Your task to perform on an android device: open app "Mercado Libre" (install if not already installed) and enter user name: "tolerating@yahoo.com" and password: "Kepler" Image 0: 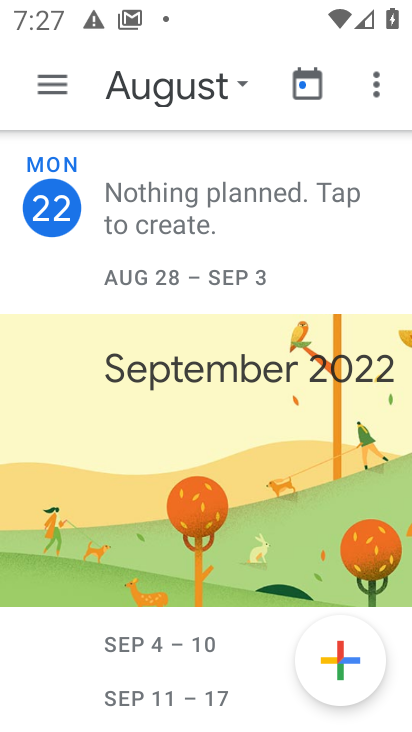
Step 0: press home button
Your task to perform on an android device: open app "Mercado Libre" (install if not already installed) and enter user name: "tolerating@yahoo.com" and password: "Kepler" Image 1: 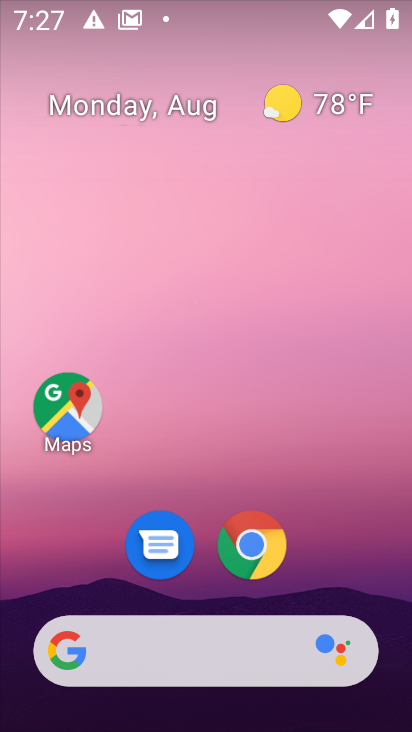
Step 1: drag from (362, 512) to (401, 166)
Your task to perform on an android device: open app "Mercado Libre" (install if not already installed) and enter user name: "tolerating@yahoo.com" and password: "Kepler" Image 2: 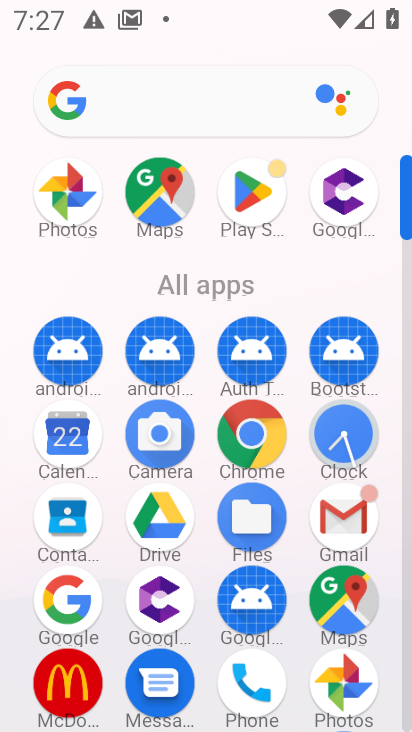
Step 2: click (248, 177)
Your task to perform on an android device: open app "Mercado Libre" (install if not already installed) and enter user name: "tolerating@yahoo.com" and password: "Kepler" Image 3: 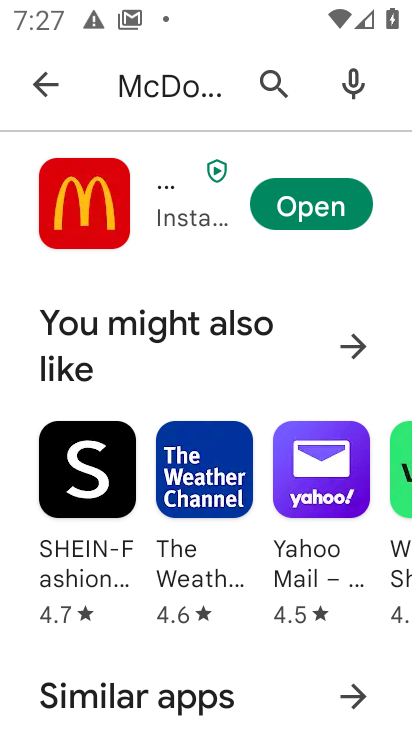
Step 3: press back button
Your task to perform on an android device: open app "Mercado Libre" (install if not already installed) and enter user name: "tolerating@yahoo.com" and password: "Kepler" Image 4: 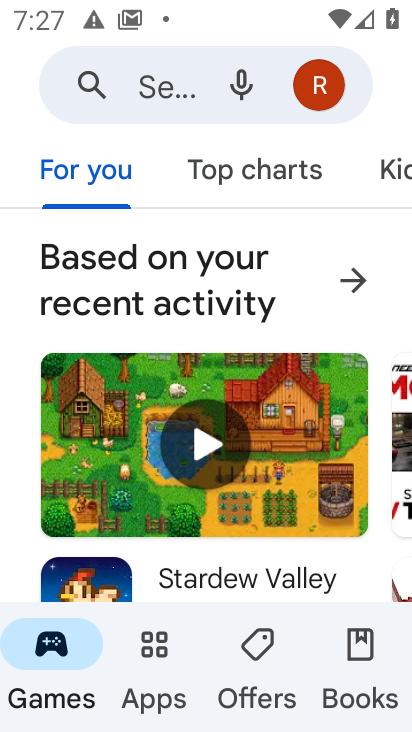
Step 4: click (157, 84)
Your task to perform on an android device: open app "Mercado Libre" (install if not already installed) and enter user name: "tolerating@yahoo.com" and password: "Kepler" Image 5: 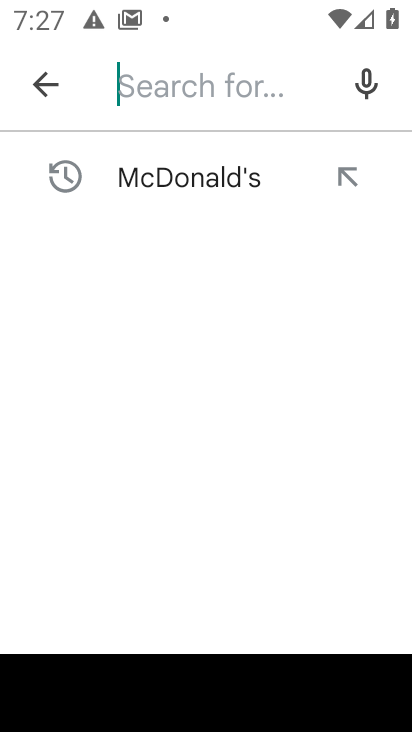
Step 5: type "Mercado Libre"
Your task to perform on an android device: open app "Mercado Libre" (install if not already installed) and enter user name: "tolerating@yahoo.com" and password: "Kepler" Image 6: 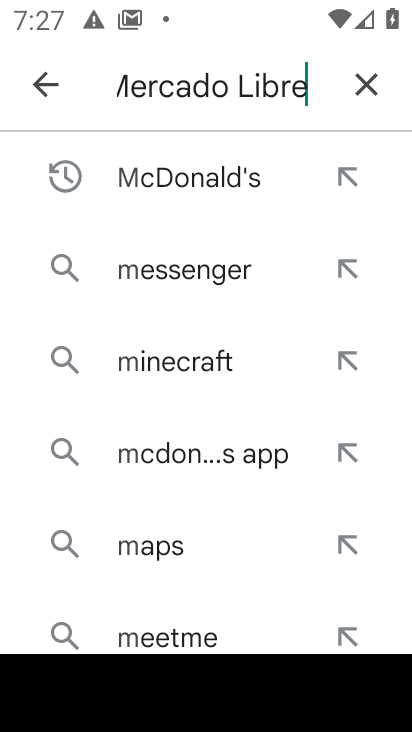
Step 6: press enter
Your task to perform on an android device: open app "Mercado Libre" (install if not already installed) and enter user name: "tolerating@yahoo.com" and password: "Kepler" Image 7: 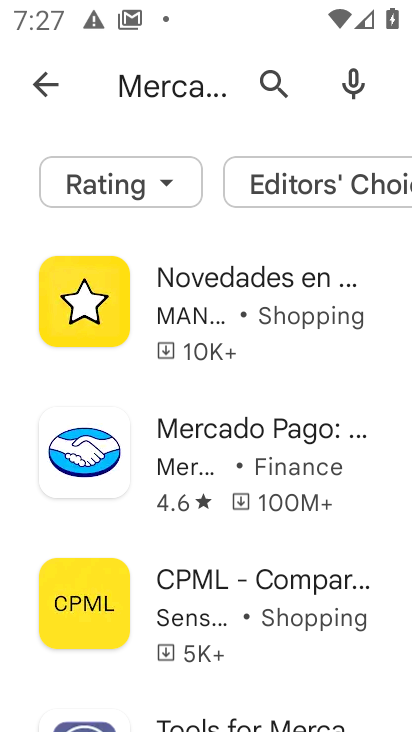
Step 7: task complete